Your task to perform on an android device: turn off location history Image 0: 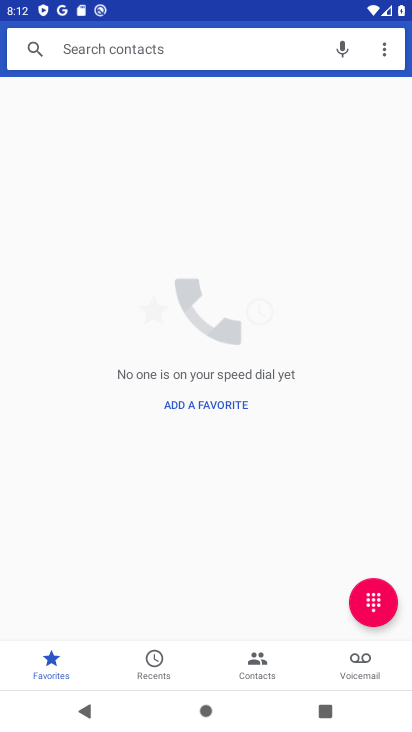
Step 0: press home button
Your task to perform on an android device: turn off location history Image 1: 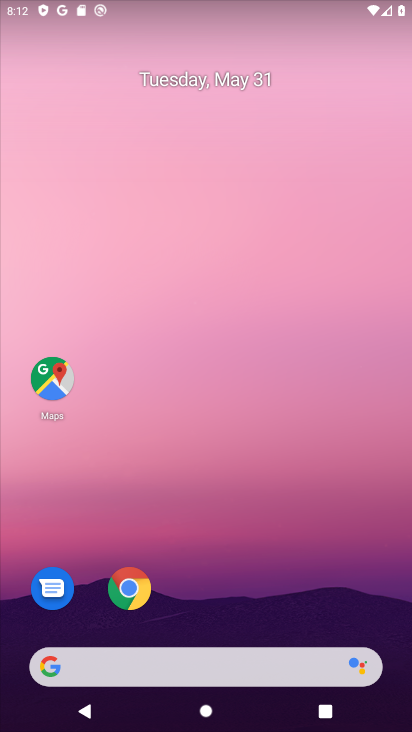
Step 1: click (40, 388)
Your task to perform on an android device: turn off location history Image 2: 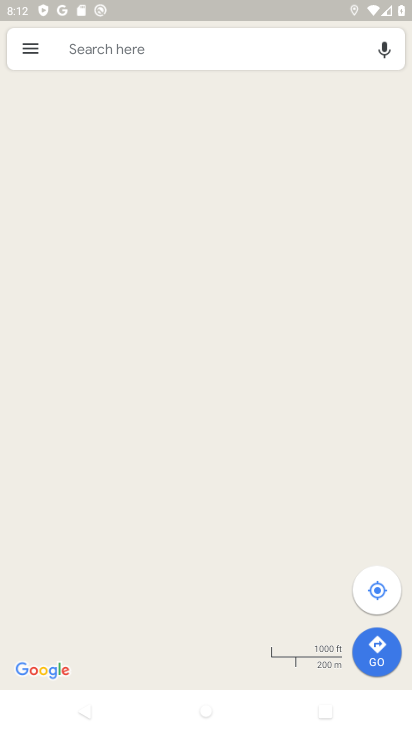
Step 2: click (33, 49)
Your task to perform on an android device: turn off location history Image 3: 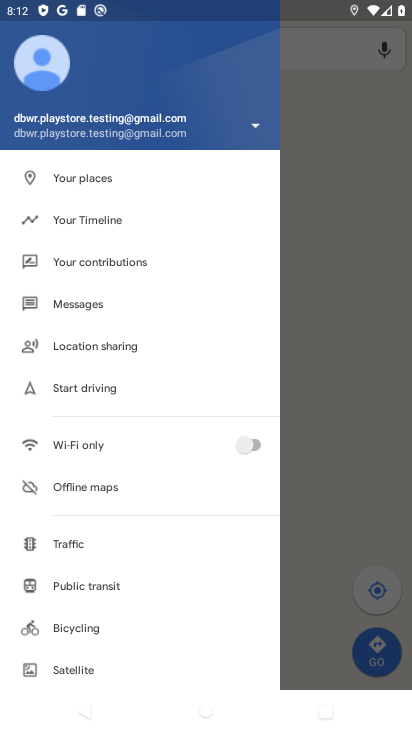
Step 3: click (71, 221)
Your task to perform on an android device: turn off location history Image 4: 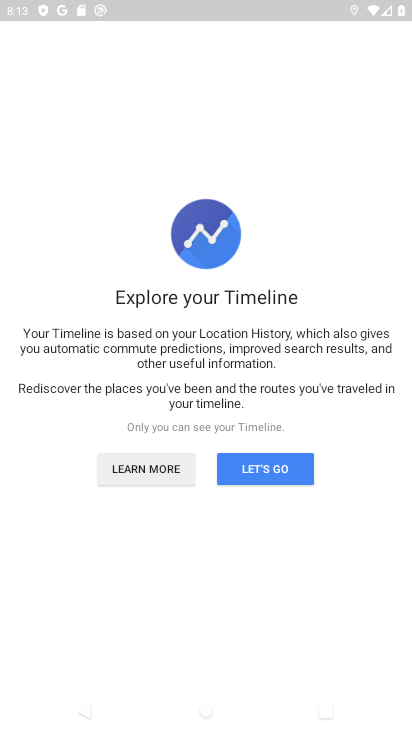
Step 4: click (256, 471)
Your task to perform on an android device: turn off location history Image 5: 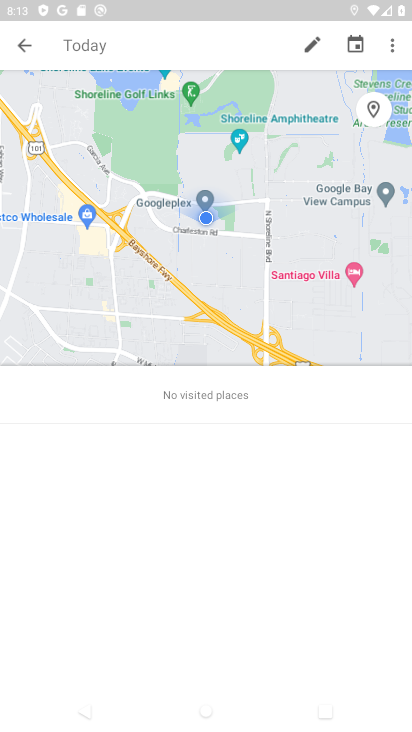
Step 5: click (393, 44)
Your task to perform on an android device: turn off location history Image 6: 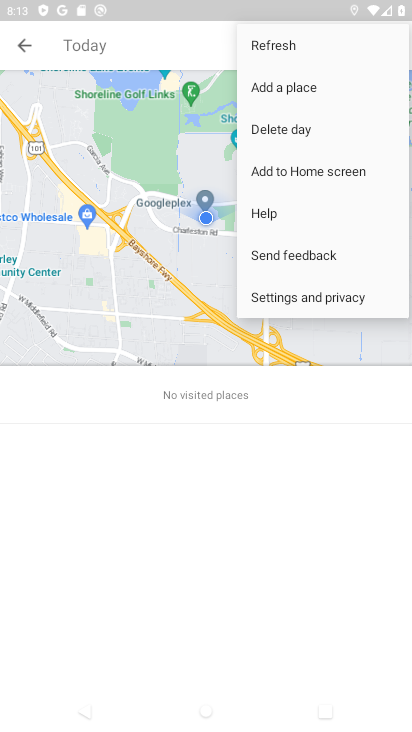
Step 6: click (322, 297)
Your task to perform on an android device: turn off location history Image 7: 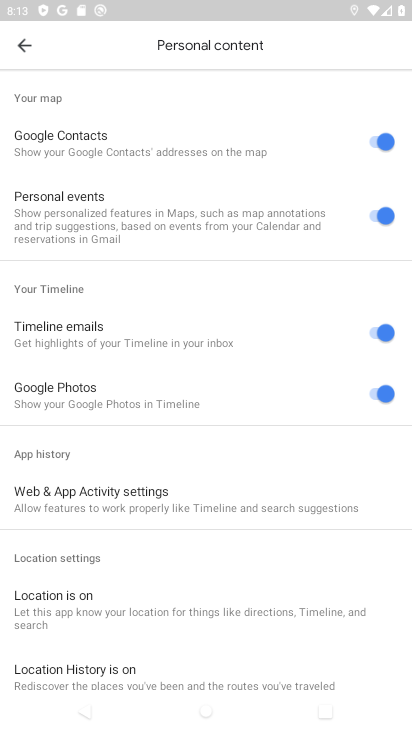
Step 7: drag from (169, 645) to (161, 216)
Your task to perform on an android device: turn off location history Image 8: 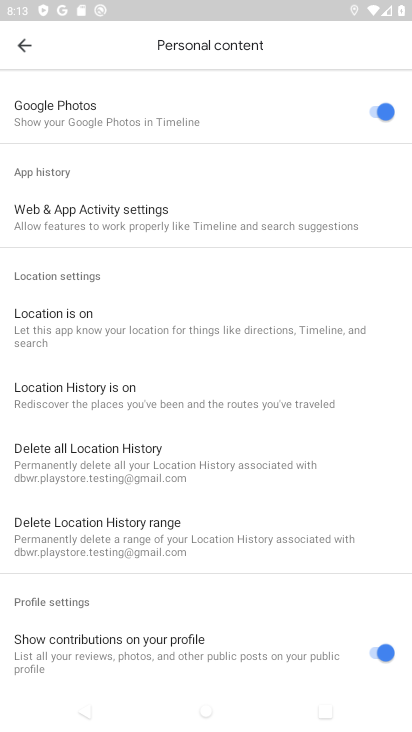
Step 8: click (147, 387)
Your task to perform on an android device: turn off location history Image 9: 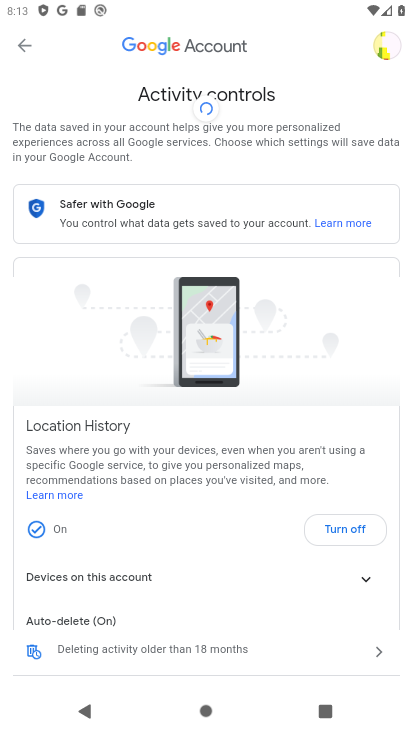
Step 9: click (341, 528)
Your task to perform on an android device: turn off location history Image 10: 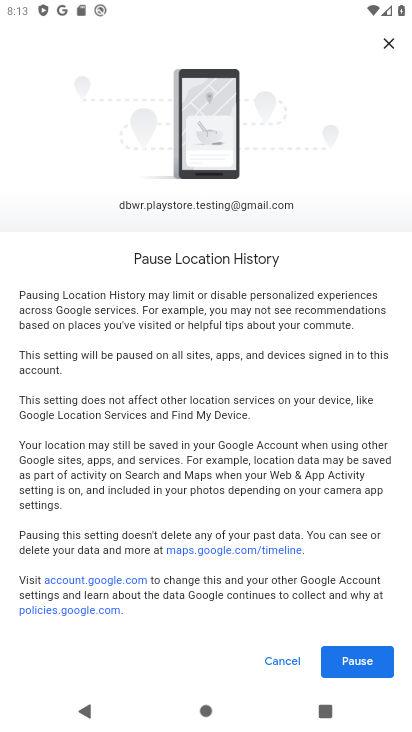
Step 10: click (365, 667)
Your task to perform on an android device: turn off location history Image 11: 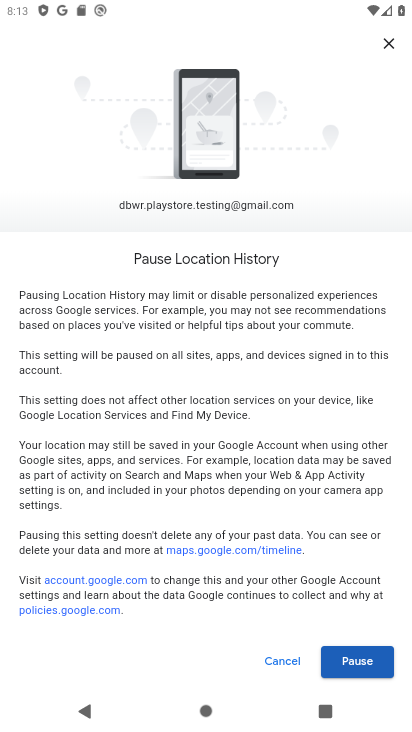
Step 11: click (365, 667)
Your task to perform on an android device: turn off location history Image 12: 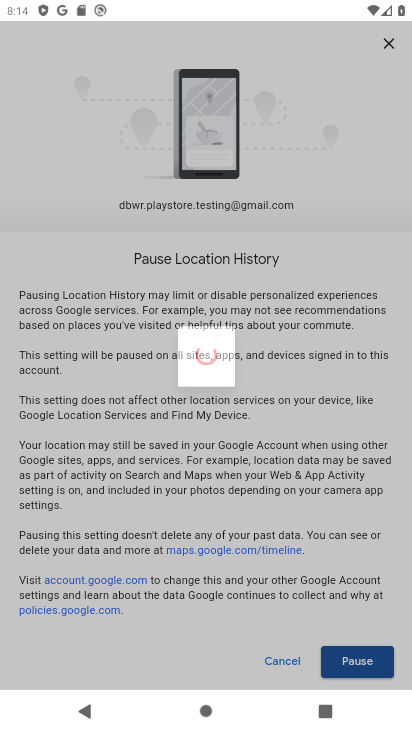
Step 12: drag from (348, 618) to (303, 349)
Your task to perform on an android device: turn off location history Image 13: 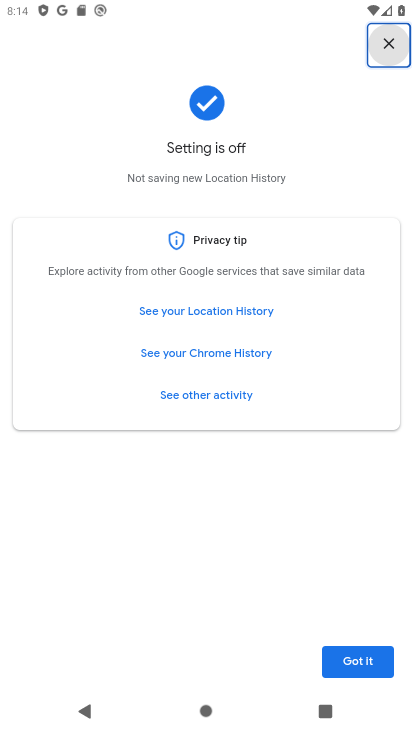
Step 13: click (378, 674)
Your task to perform on an android device: turn off location history Image 14: 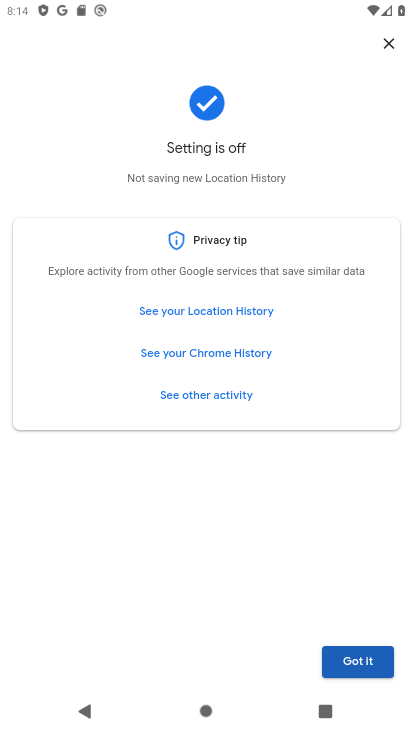
Step 14: click (378, 674)
Your task to perform on an android device: turn off location history Image 15: 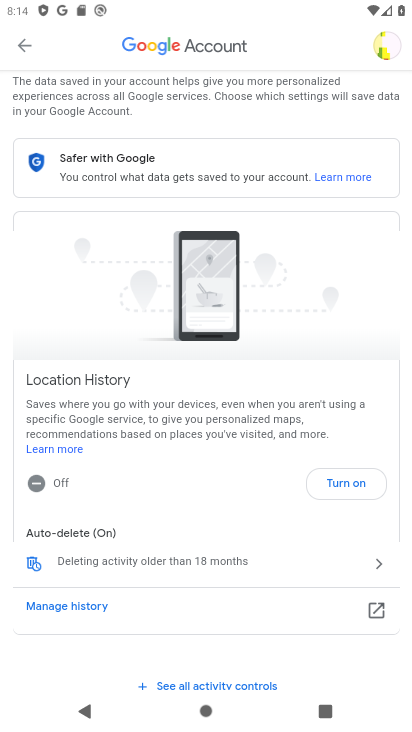
Step 15: task complete